Your task to perform on an android device: Go to network settings Image 0: 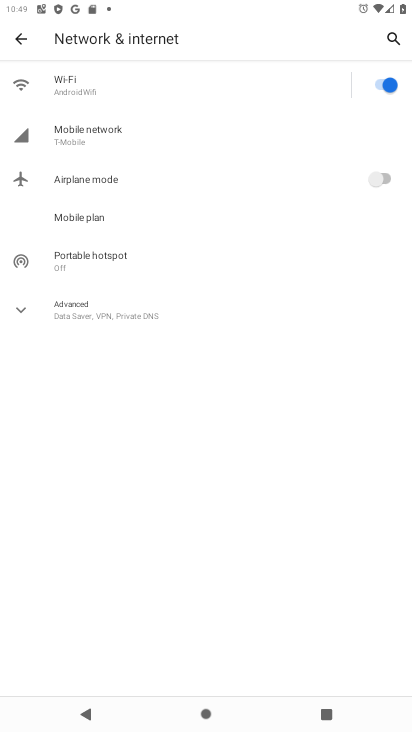
Step 0: press home button
Your task to perform on an android device: Go to network settings Image 1: 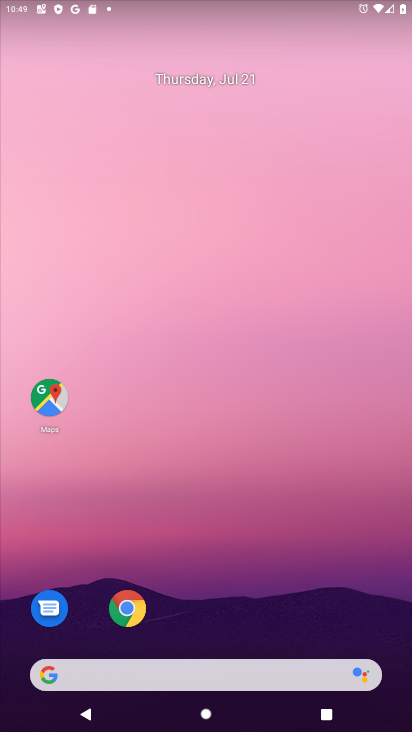
Step 1: drag from (370, 618) to (222, 37)
Your task to perform on an android device: Go to network settings Image 2: 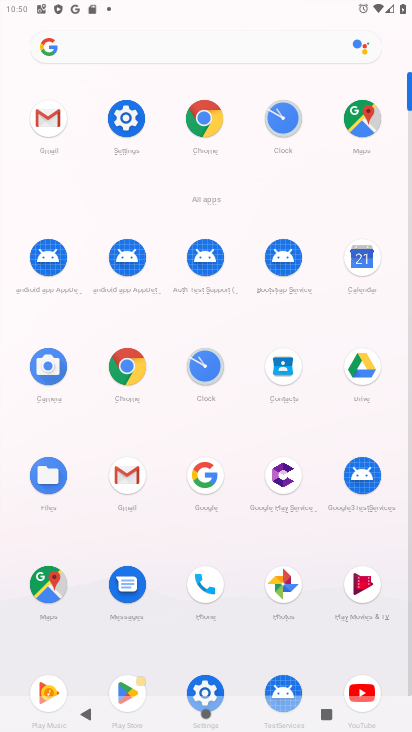
Step 2: click (114, 117)
Your task to perform on an android device: Go to network settings Image 3: 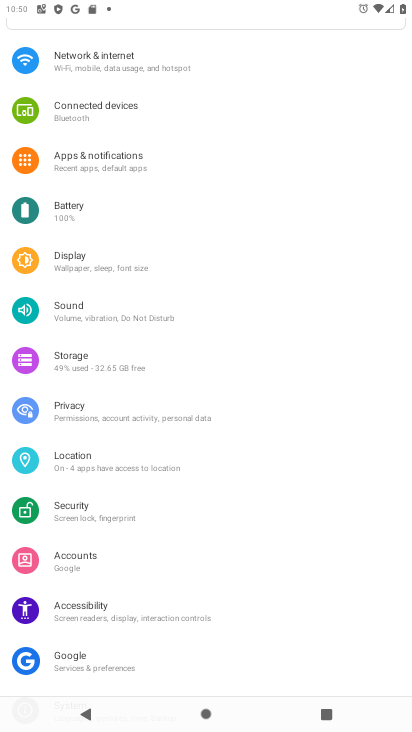
Step 3: click (68, 61)
Your task to perform on an android device: Go to network settings Image 4: 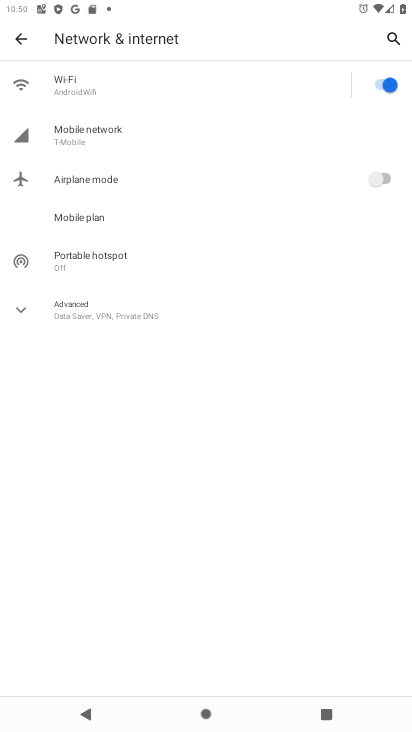
Step 4: task complete